Your task to perform on an android device: Open accessibility settings Image 0: 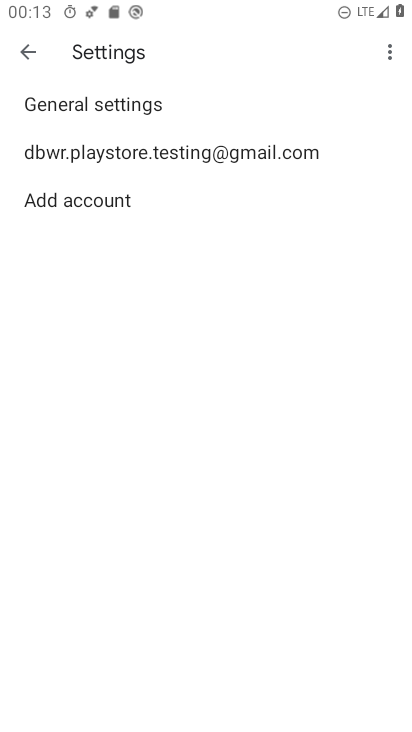
Step 0: press home button
Your task to perform on an android device: Open accessibility settings Image 1: 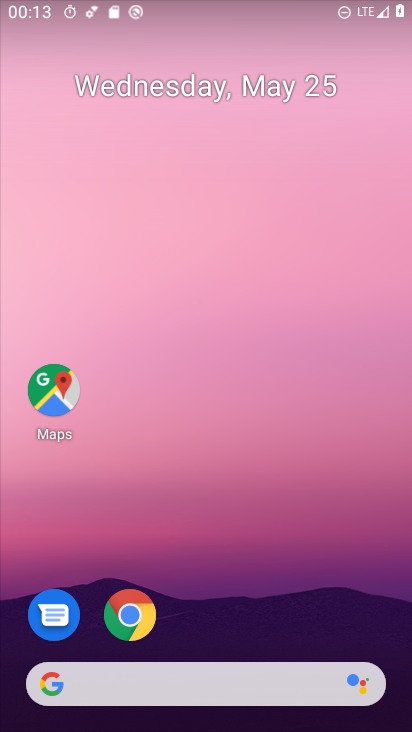
Step 1: drag from (245, 697) to (351, 123)
Your task to perform on an android device: Open accessibility settings Image 2: 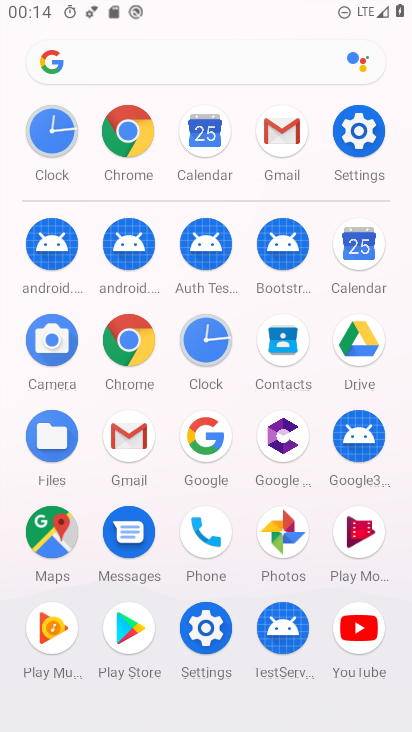
Step 2: click (361, 126)
Your task to perform on an android device: Open accessibility settings Image 3: 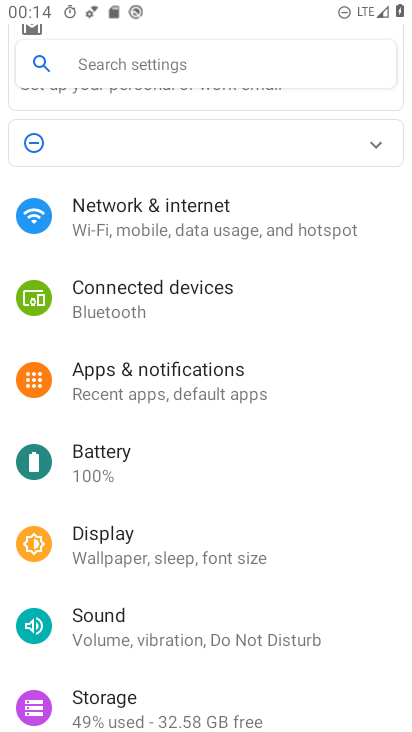
Step 3: click (174, 56)
Your task to perform on an android device: Open accessibility settings Image 4: 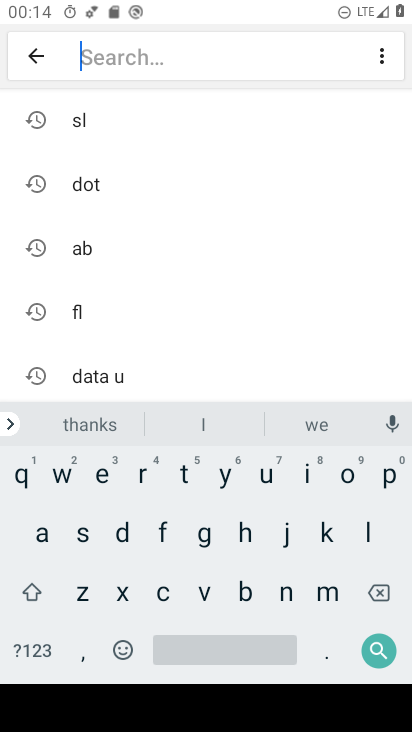
Step 4: click (48, 538)
Your task to perform on an android device: Open accessibility settings Image 5: 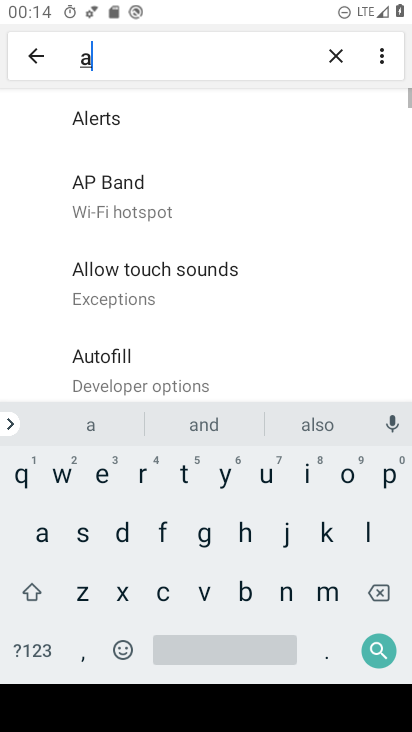
Step 5: click (156, 595)
Your task to perform on an android device: Open accessibility settings Image 6: 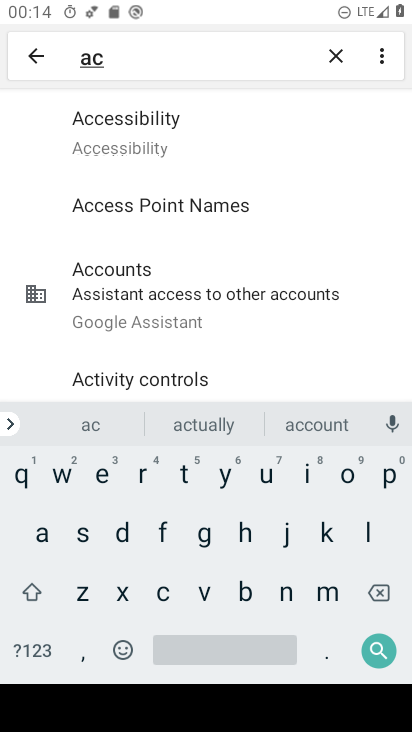
Step 6: click (196, 151)
Your task to perform on an android device: Open accessibility settings Image 7: 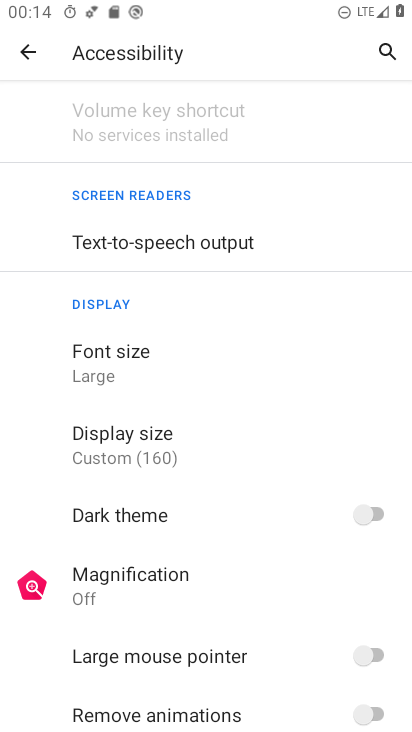
Step 7: task complete